Your task to perform on an android device: Open the calendar and show me this week's events? Image 0: 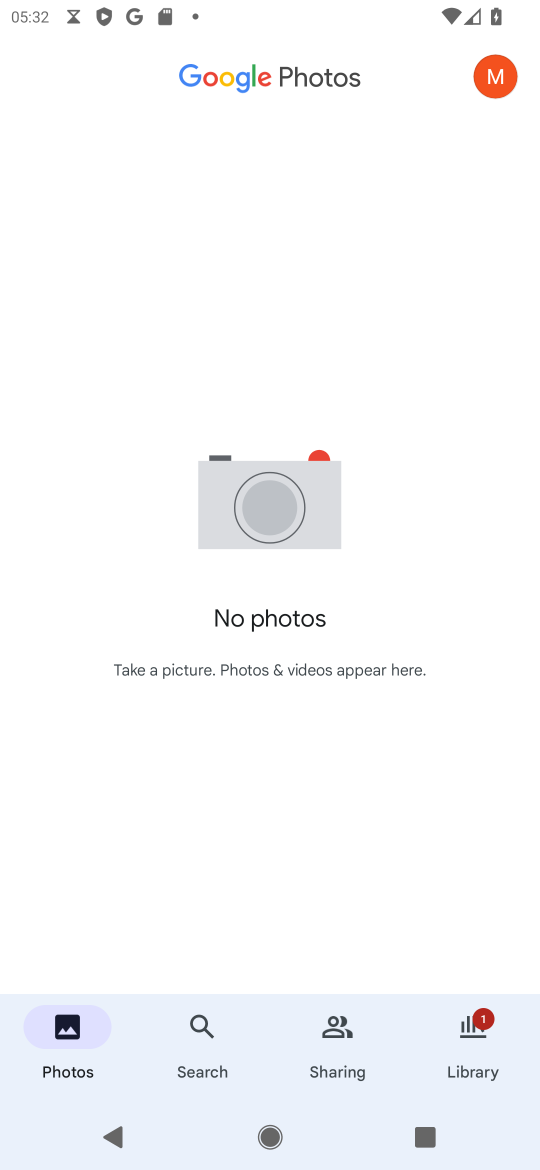
Step 0: press home button
Your task to perform on an android device: Open the calendar and show me this week's events? Image 1: 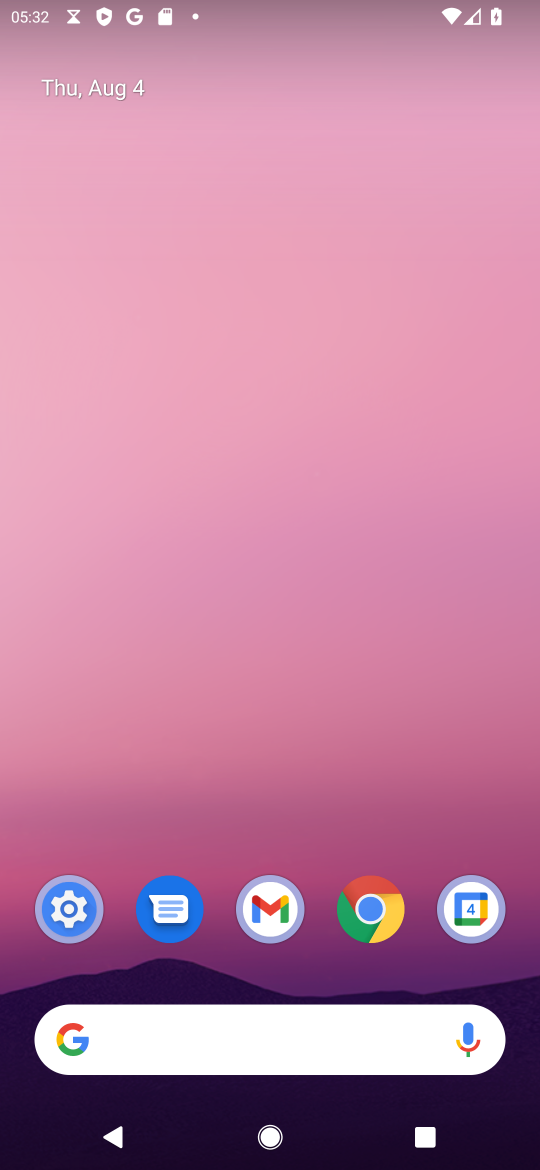
Step 1: click (463, 900)
Your task to perform on an android device: Open the calendar and show me this week's events? Image 2: 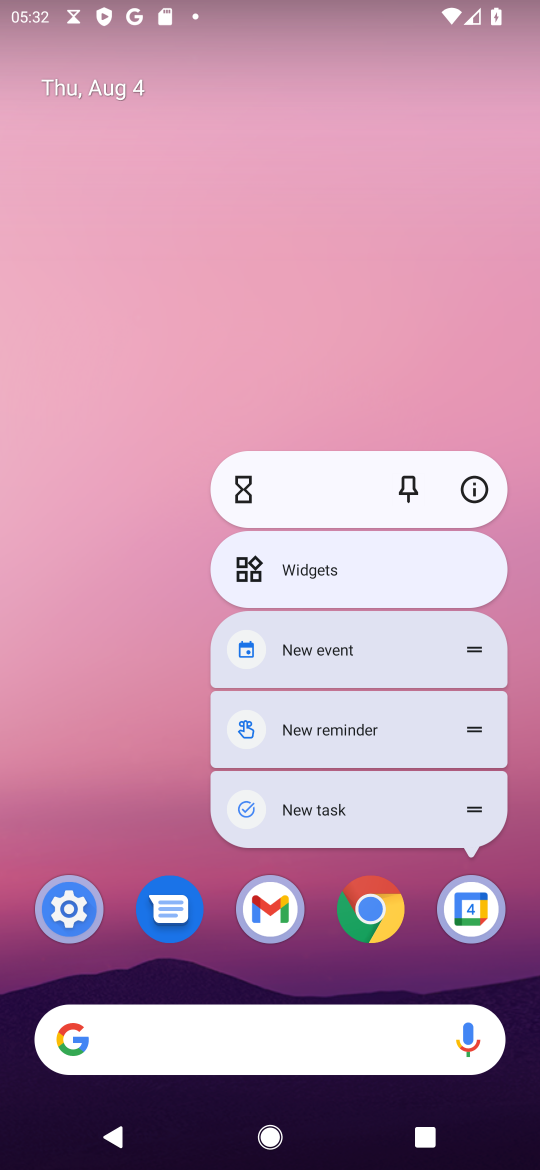
Step 2: click (463, 897)
Your task to perform on an android device: Open the calendar and show me this week's events? Image 3: 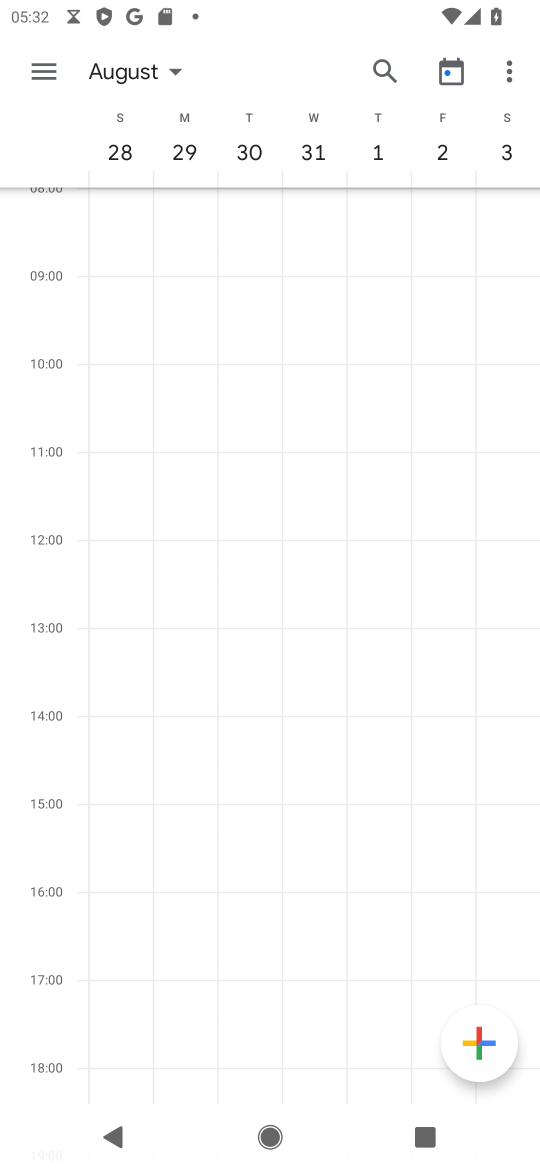
Step 3: click (131, 73)
Your task to perform on an android device: Open the calendar and show me this week's events? Image 4: 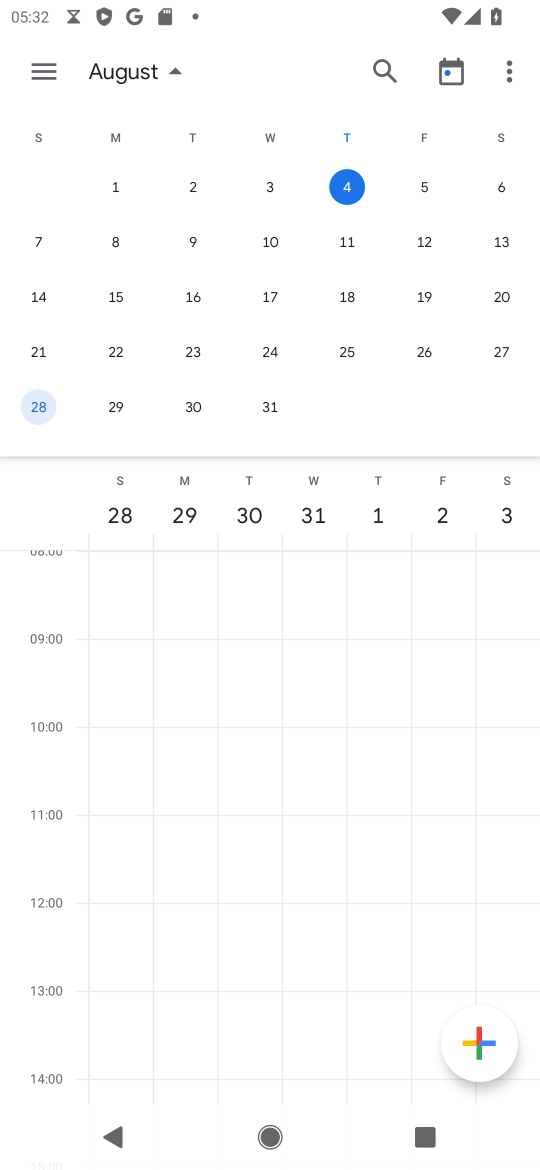
Step 4: click (350, 187)
Your task to perform on an android device: Open the calendar and show me this week's events? Image 5: 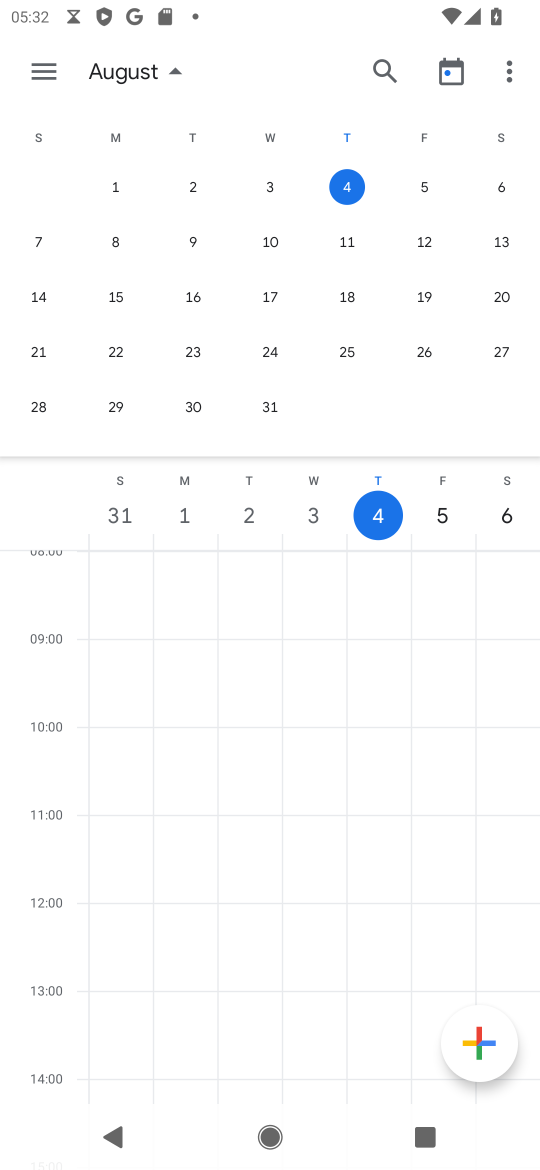
Step 5: click (46, 71)
Your task to perform on an android device: Open the calendar and show me this week's events? Image 6: 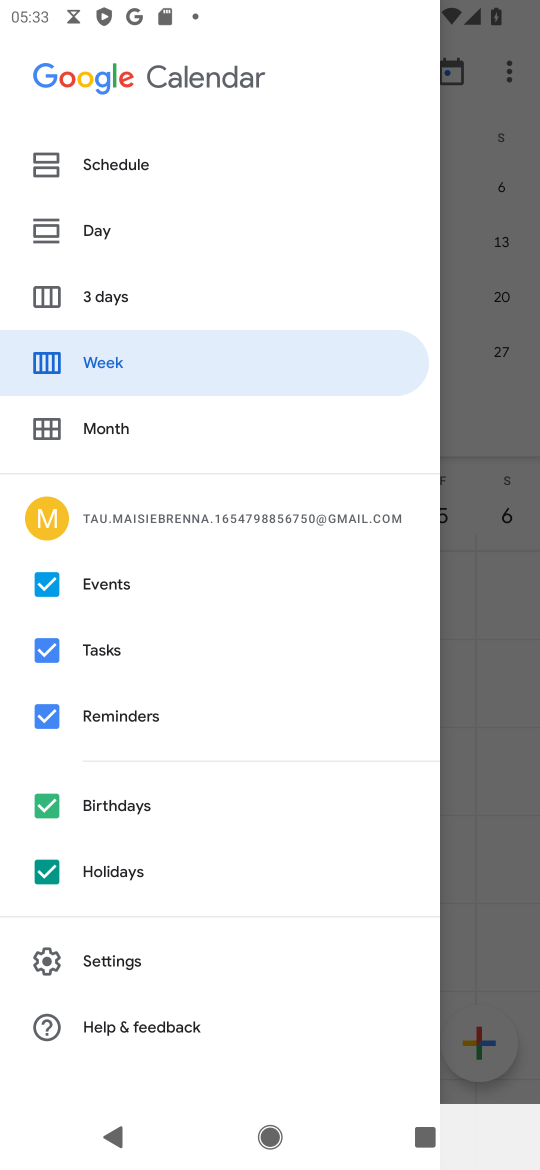
Step 6: click (99, 354)
Your task to perform on an android device: Open the calendar and show me this week's events? Image 7: 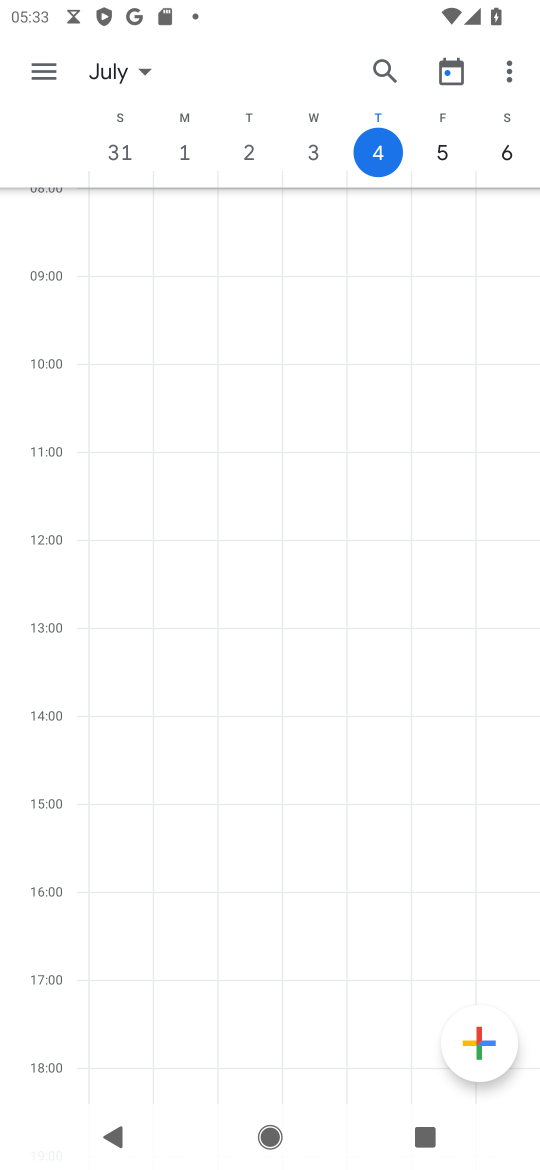
Step 7: click (56, 69)
Your task to perform on an android device: Open the calendar and show me this week's events? Image 8: 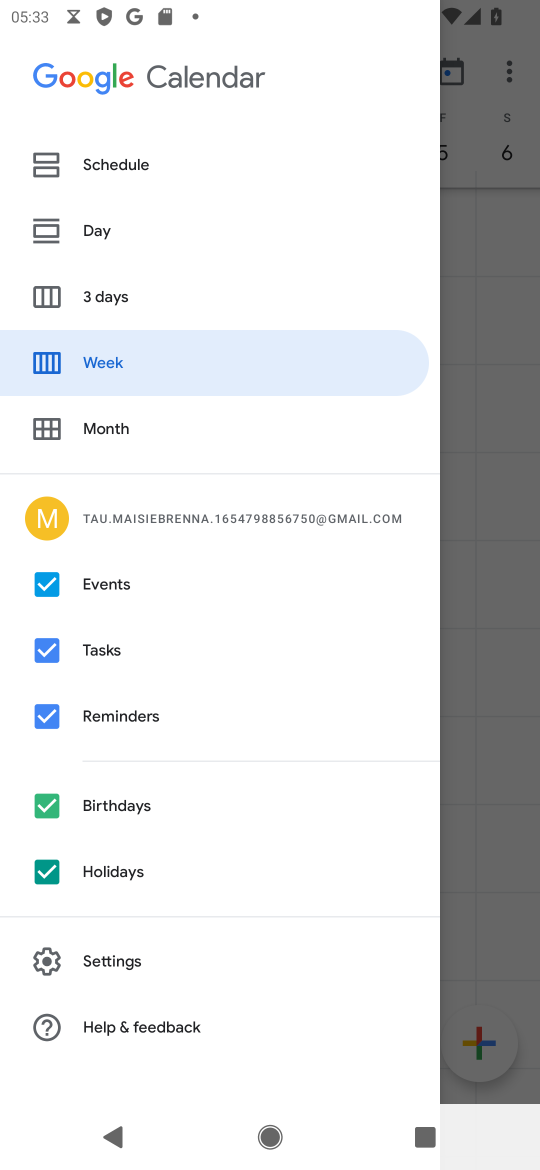
Step 8: click (114, 172)
Your task to perform on an android device: Open the calendar and show me this week's events? Image 9: 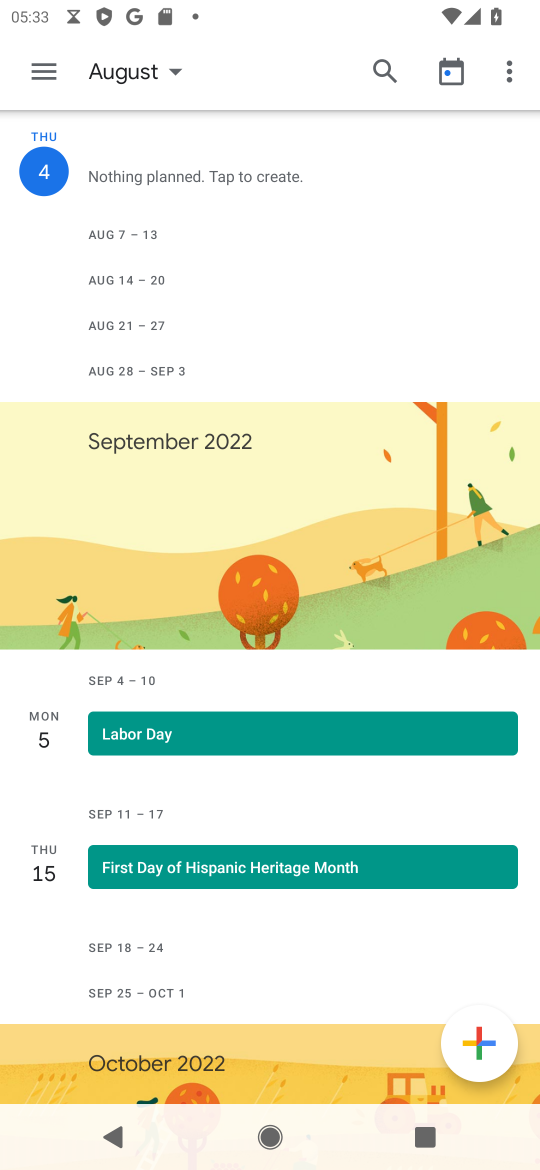
Step 9: task complete